Your task to perform on an android device: Is it going to rain tomorrow? Image 0: 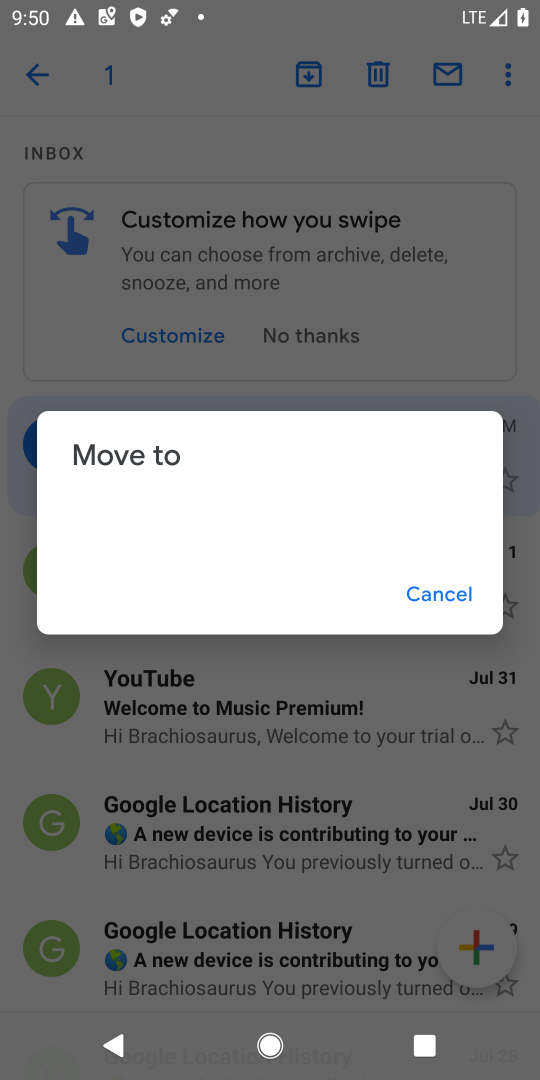
Step 0: press home button
Your task to perform on an android device: Is it going to rain tomorrow? Image 1: 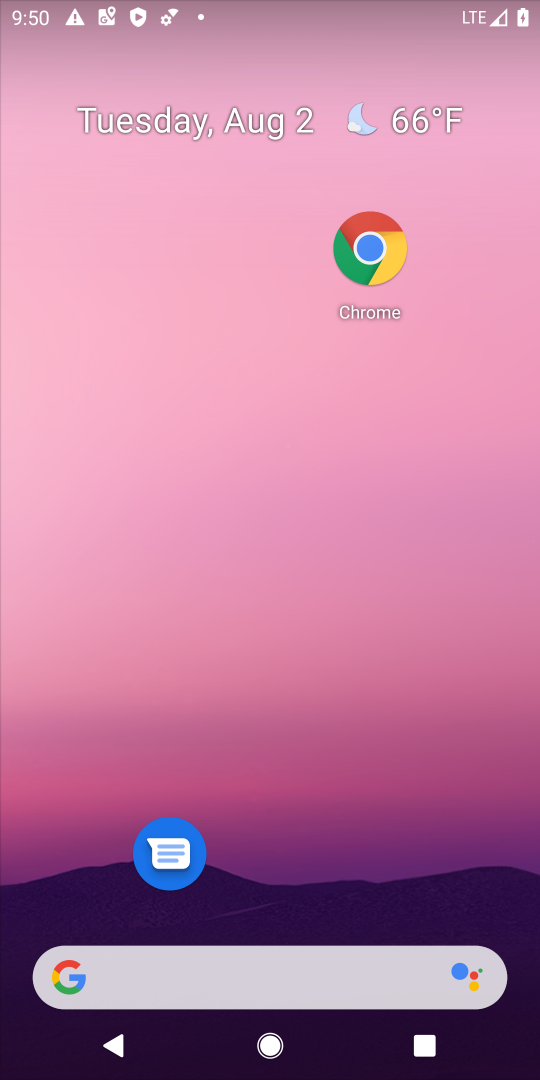
Step 1: drag from (322, 922) to (466, 22)
Your task to perform on an android device: Is it going to rain tomorrow? Image 2: 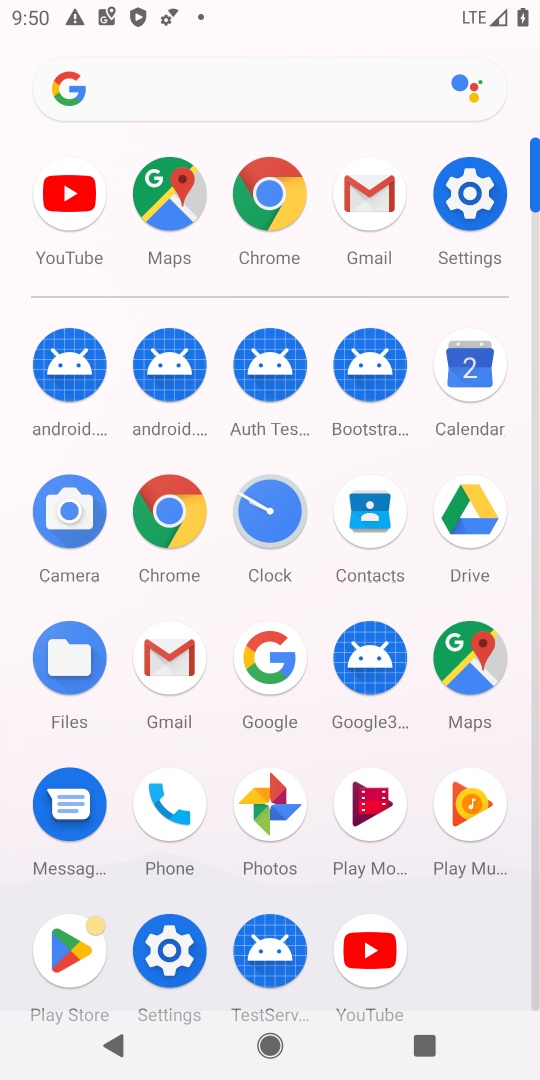
Step 2: click (278, 650)
Your task to perform on an android device: Is it going to rain tomorrow? Image 3: 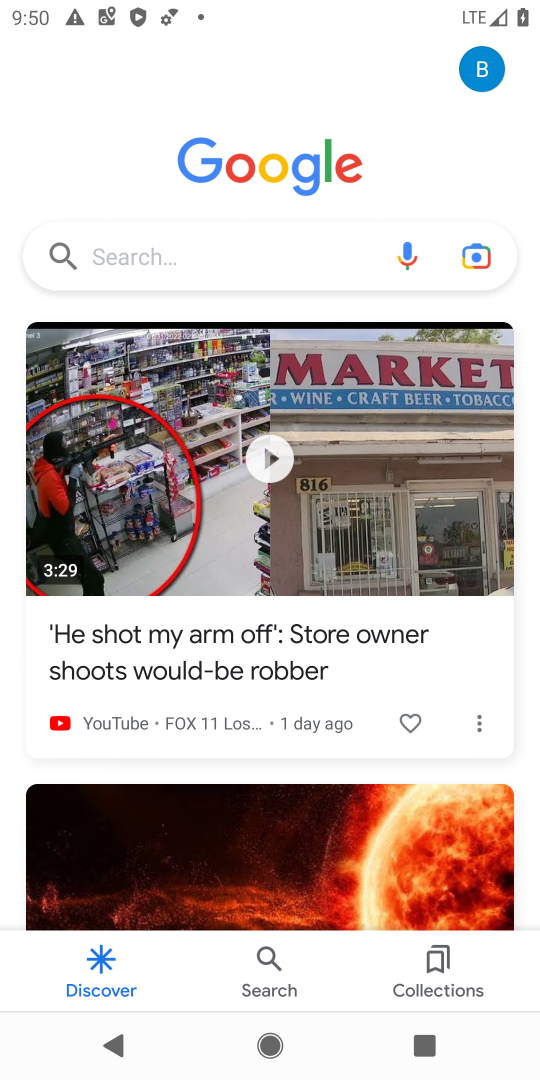
Step 3: click (276, 262)
Your task to perform on an android device: Is it going to rain tomorrow? Image 4: 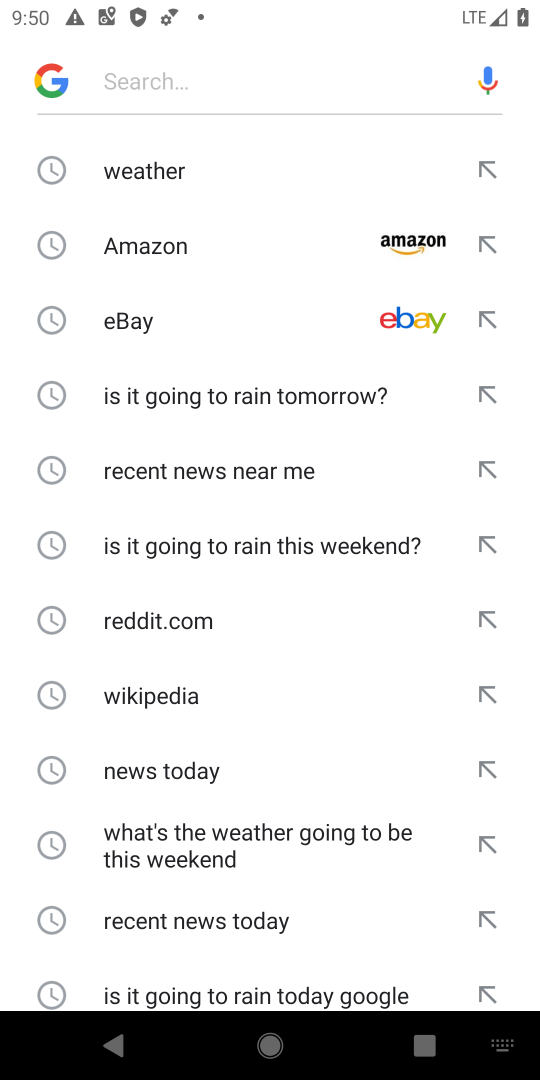
Step 4: click (186, 174)
Your task to perform on an android device: Is it going to rain tomorrow? Image 5: 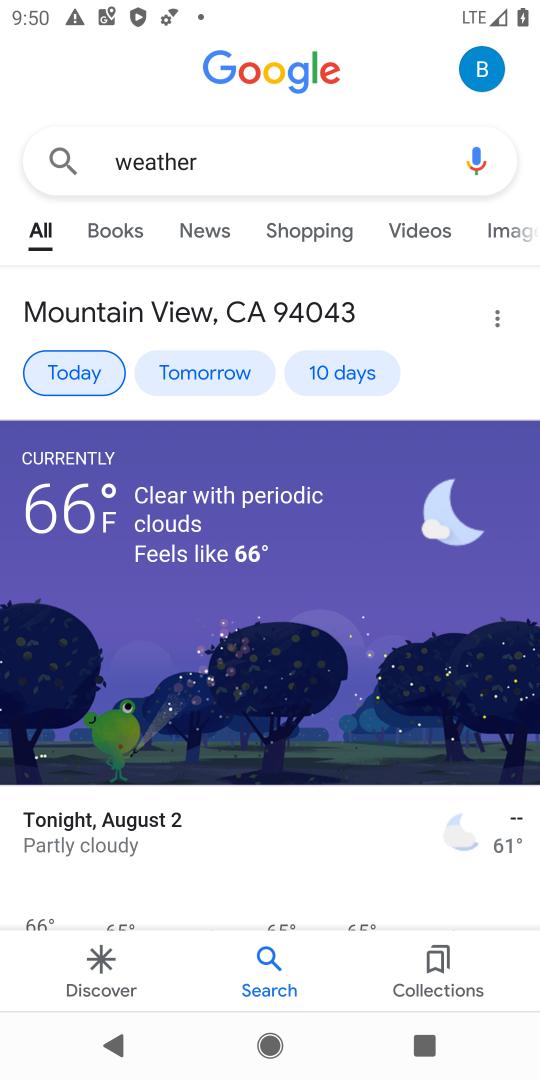
Step 5: click (203, 370)
Your task to perform on an android device: Is it going to rain tomorrow? Image 6: 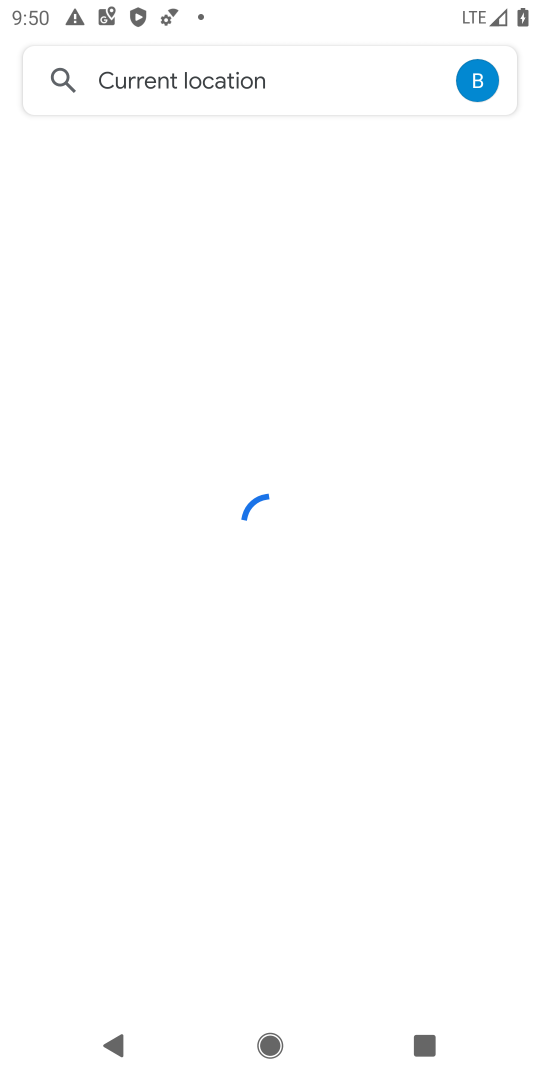
Step 6: task complete